Your task to perform on an android device: add a contact in the contacts app Image 0: 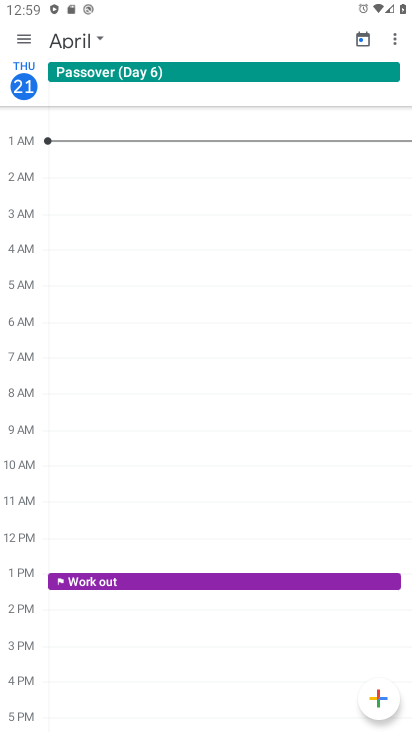
Step 0: press home button
Your task to perform on an android device: add a contact in the contacts app Image 1: 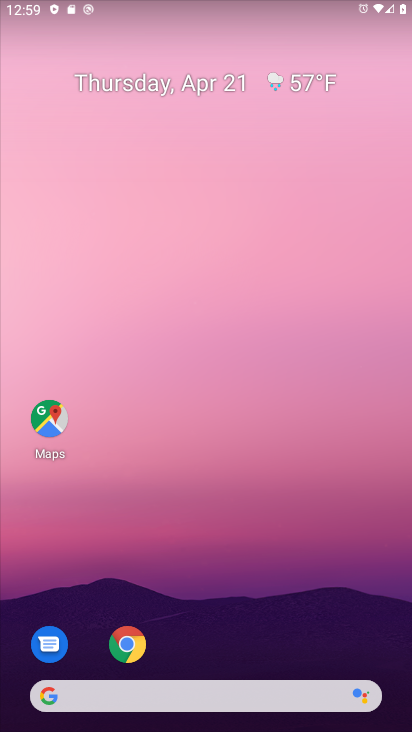
Step 1: drag from (198, 668) to (265, 89)
Your task to perform on an android device: add a contact in the contacts app Image 2: 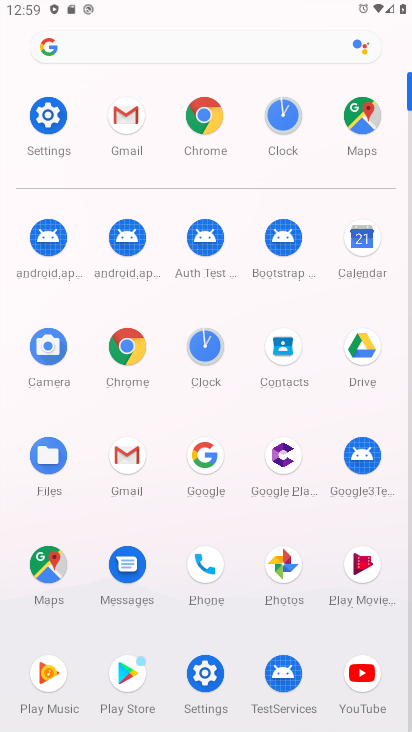
Step 2: click (209, 574)
Your task to perform on an android device: add a contact in the contacts app Image 3: 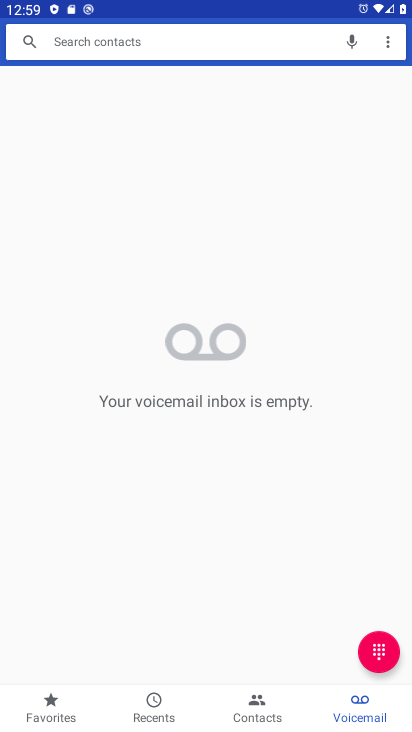
Step 3: click (268, 704)
Your task to perform on an android device: add a contact in the contacts app Image 4: 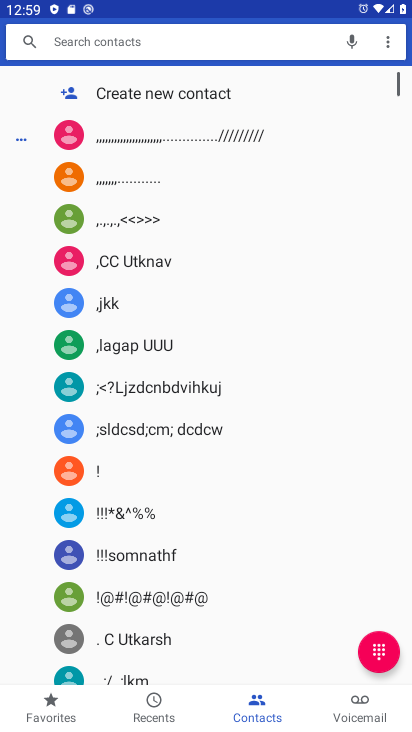
Step 4: click (175, 95)
Your task to perform on an android device: add a contact in the contacts app Image 5: 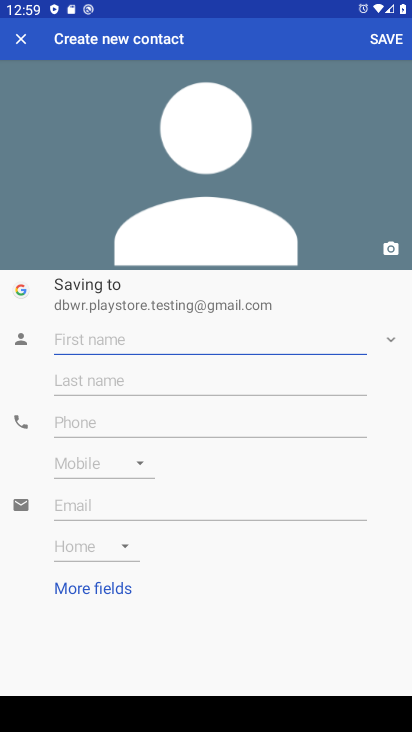
Step 5: type "b"
Your task to perform on an android device: add a contact in the contacts app Image 6: 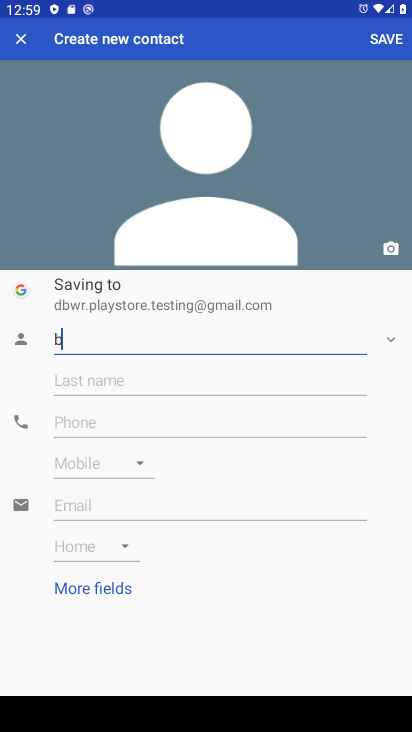
Step 6: click (191, 424)
Your task to perform on an android device: add a contact in the contacts app Image 7: 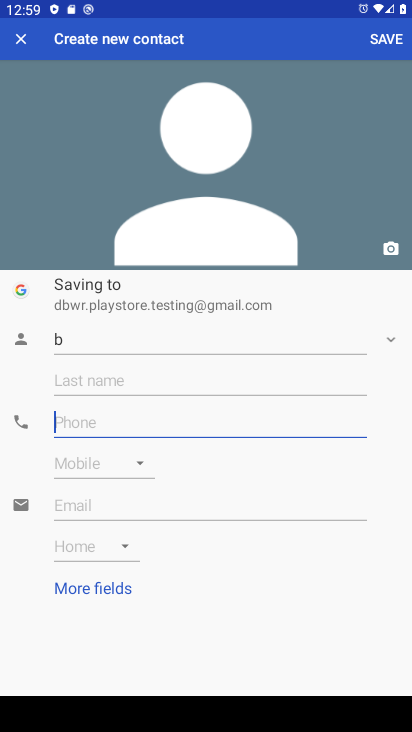
Step 7: type "6556"
Your task to perform on an android device: add a contact in the contacts app Image 8: 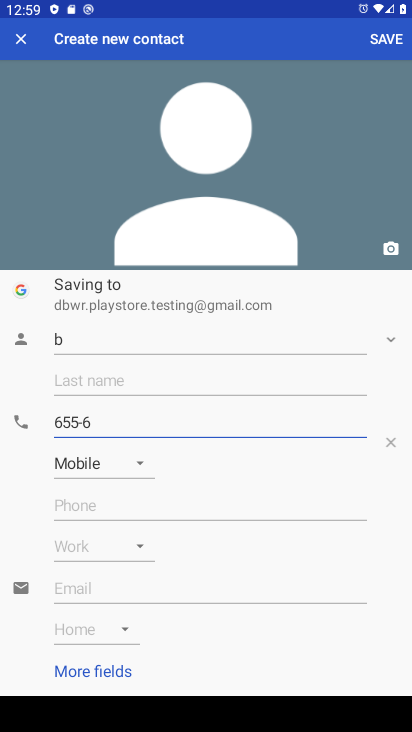
Step 8: click (381, 43)
Your task to perform on an android device: add a contact in the contacts app Image 9: 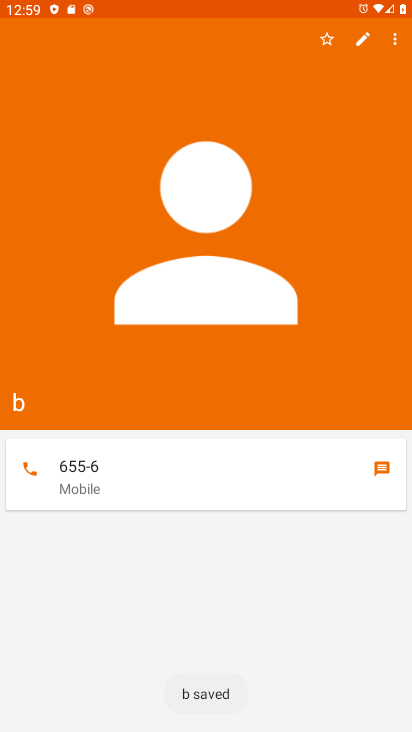
Step 9: task complete